Your task to perform on an android device: Open Reddit.com Image 0: 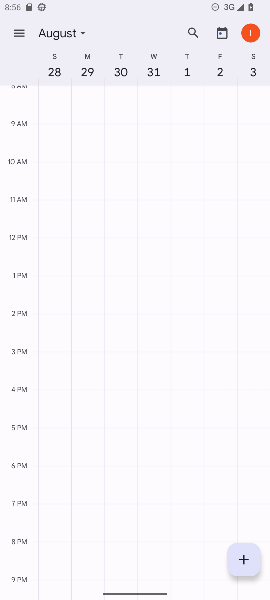
Step 0: press back button
Your task to perform on an android device: Open Reddit.com Image 1: 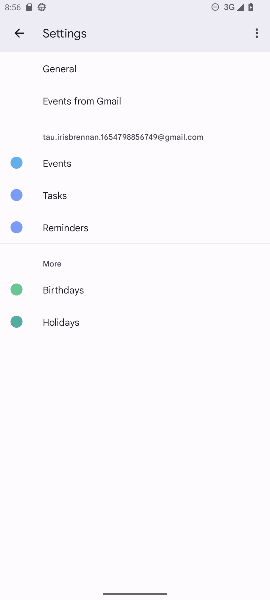
Step 1: press home button
Your task to perform on an android device: Open Reddit.com Image 2: 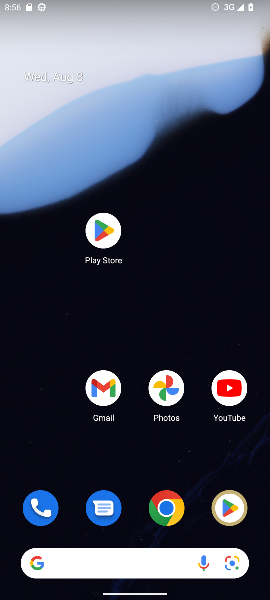
Step 2: click (172, 510)
Your task to perform on an android device: Open Reddit.com Image 3: 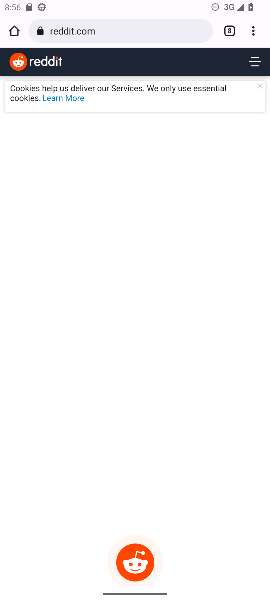
Step 3: task complete